Your task to perform on an android device: Open ESPN.com Image 0: 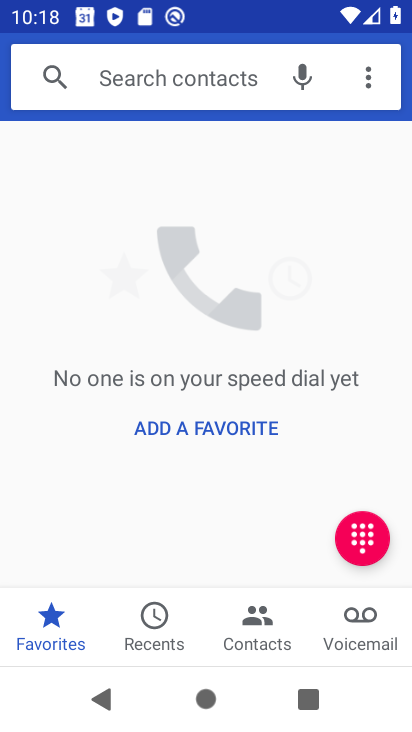
Step 0: press home button
Your task to perform on an android device: Open ESPN.com Image 1: 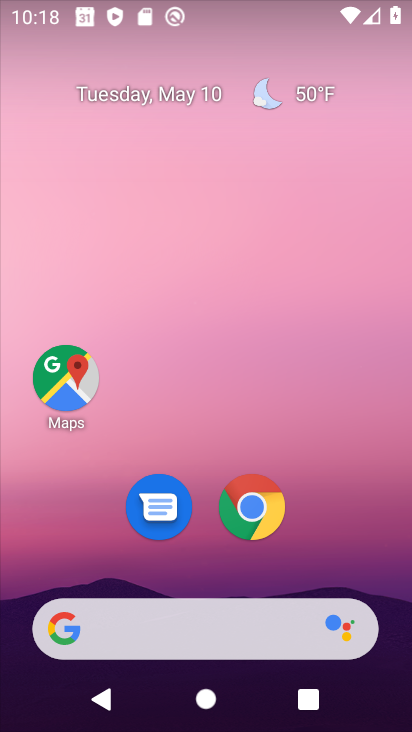
Step 1: click (278, 508)
Your task to perform on an android device: Open ESPN.com Image 2: 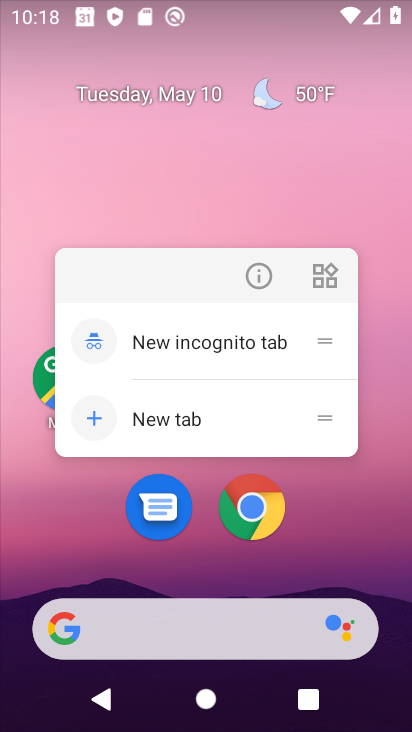
Step 2: click (269, 496)
Your task to perform on an android device: Open ESPN.com Image 3: 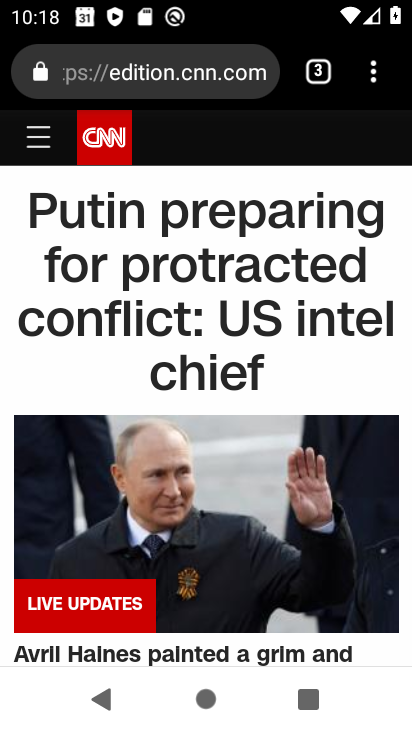
Step 3: click (311, 64)
Your task to perform on an android device: Open ESPN.com Image 4: 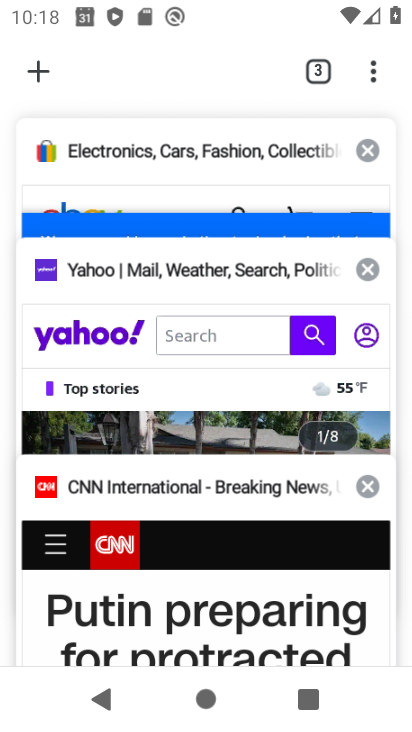
Step 4: click (41, 69)
Your task to perform on an android device: Open ESPN.com Image 5: 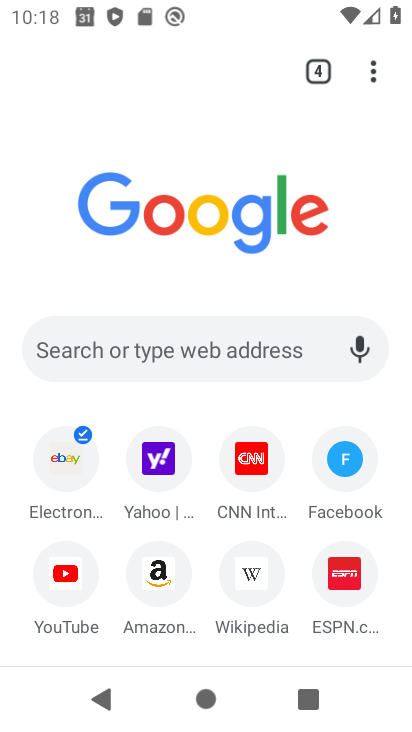
Step 5: click (336, 595)
Your task to perform on an android device: Open ESPN.com Image 6: 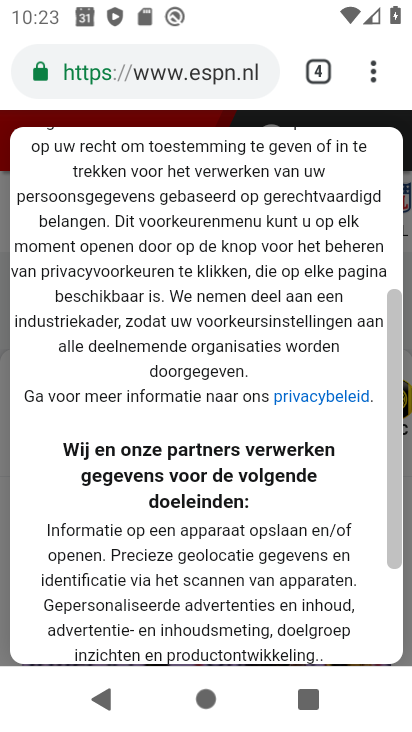
Step 6: task complete